Your task to perform on an android device: When is my next meeting? Image 0: 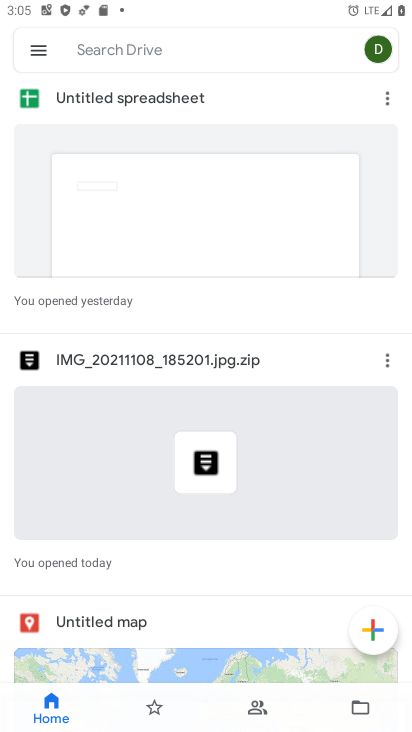
Step 0: press home button
Your task to perform on an android device: When is my next meeting? Image 1: 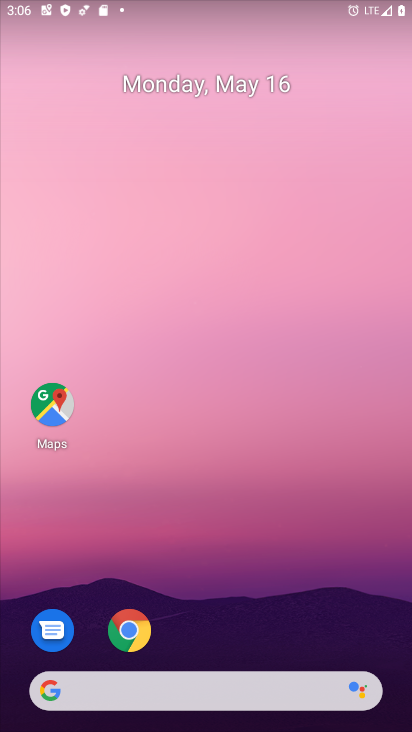
Step 1: drag from (249, 649) to (274, 153)
Your task to perform on an android device: When is my next meeting? Image 2: 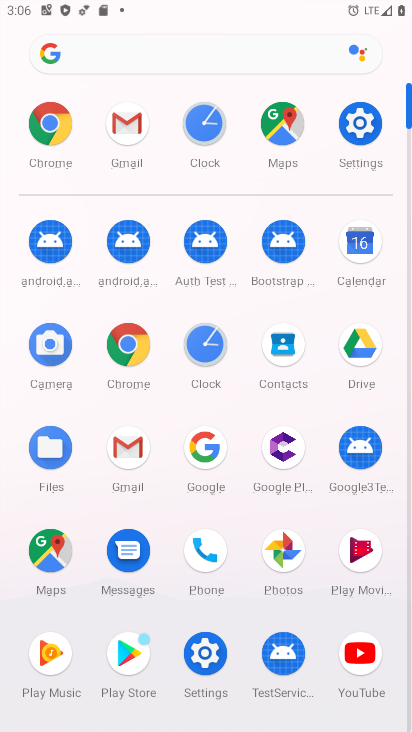
Step 2: click (366, 240)
Your task to perform on an android device: When is my next meeting? Image 3: 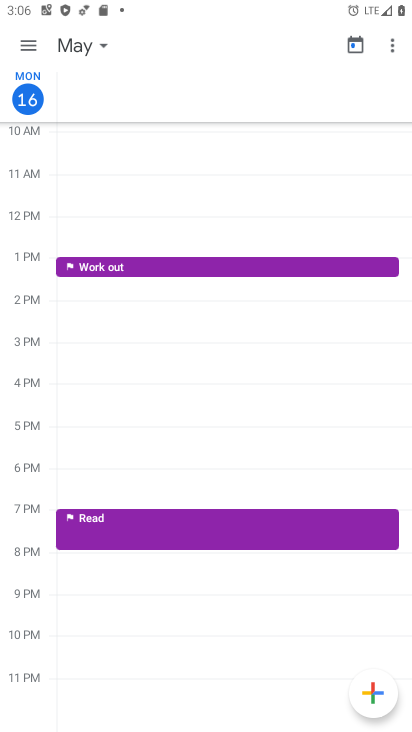
Step 3: click (42, 110)
Your task to perform on an android device: When is my next meeting? Image 4: 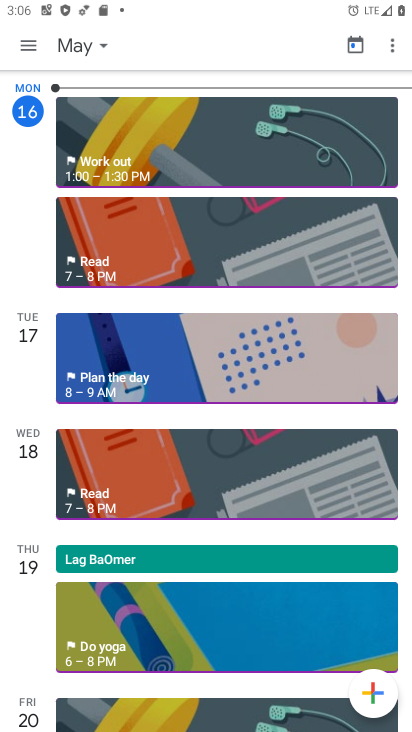
Step 4: task complete